Your task to perform on an android device: add a label to a message in the gmail app Image 0: 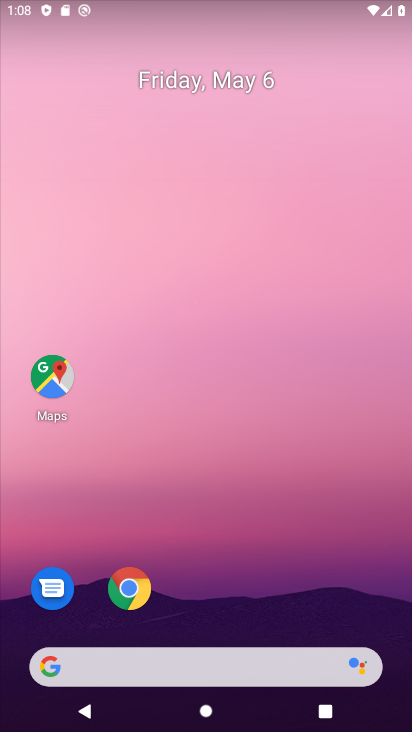
Step 0: drag from (395, 583) to (356, 91)
Your task to perform on an android device: add a label to a message in the gmail app Image 1: 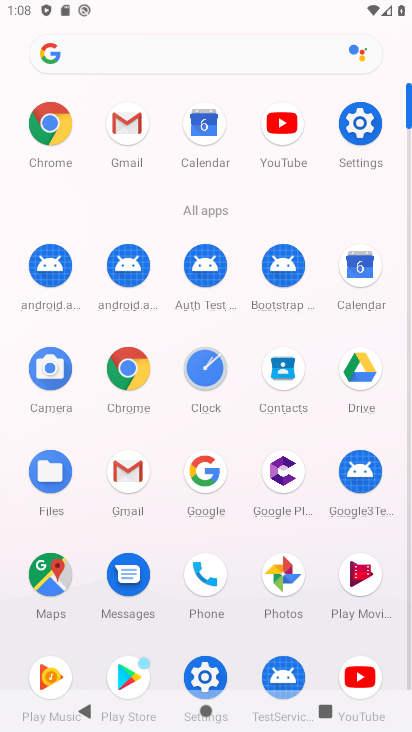
Step 1: click (125, 140)
Your task to perform on an android device: add a label to a message in the gmail app Image 2: 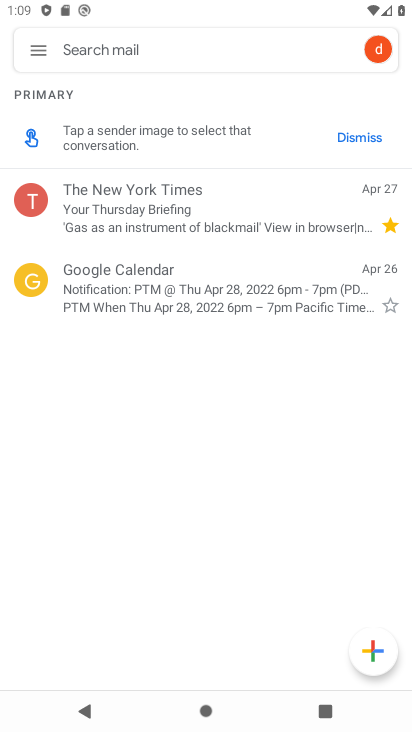
Step 2: click (390, 304)
Your task to perform on an android device: add a label to a message in the gmail app Image 3: 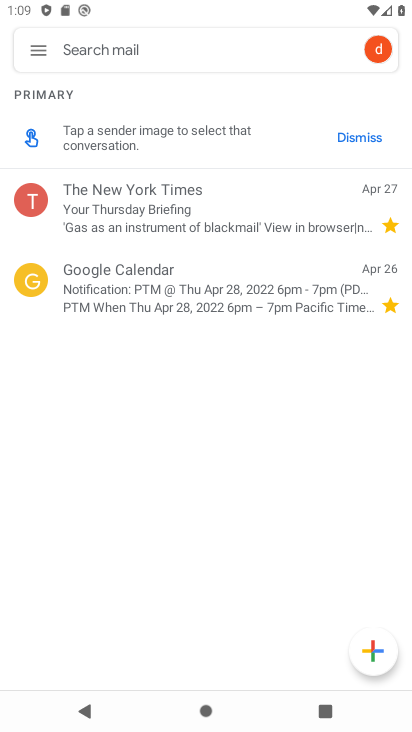
Step 3: task complete